Your task to perform on an android device: open app "Roku - Official Remote Control" Image 0: 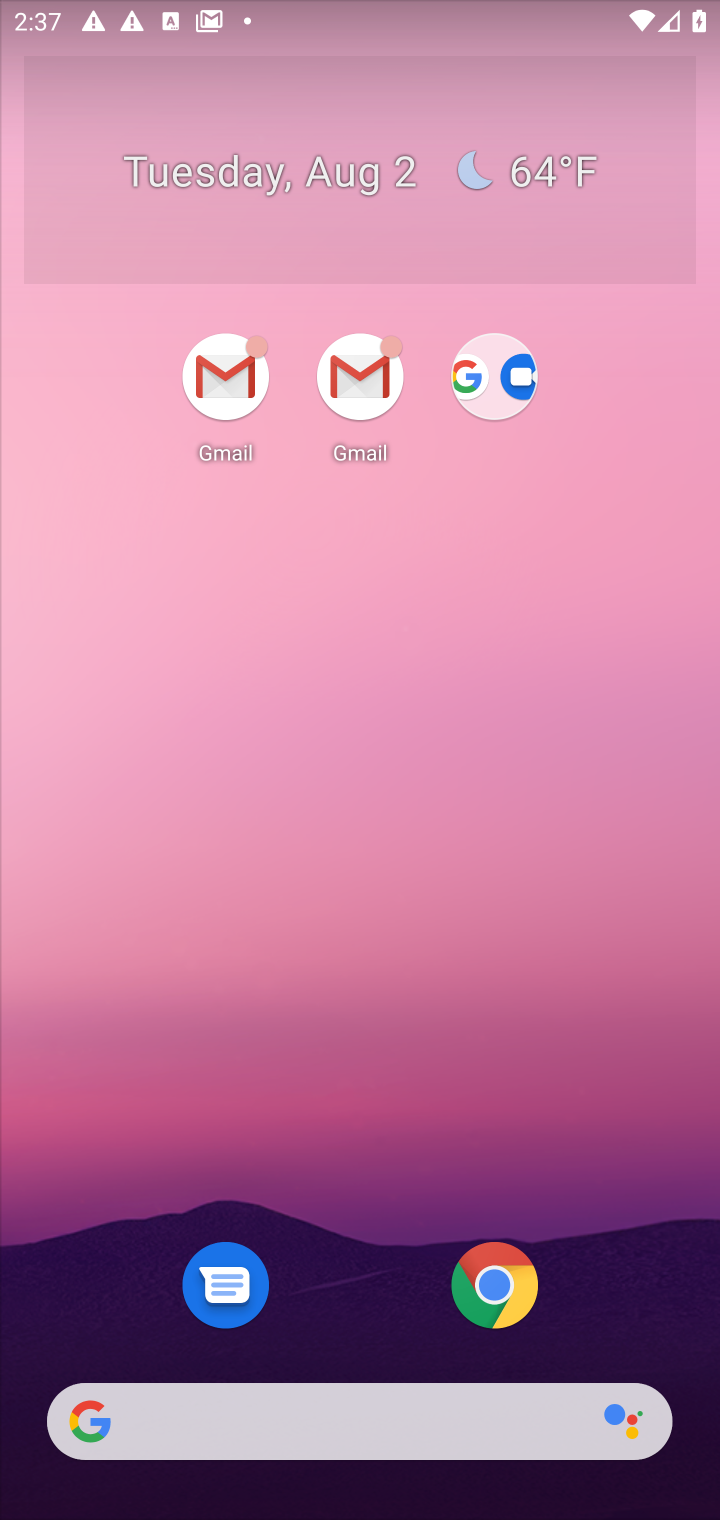
Step 0: drag from (580, 1146) to (559, 271)
Your task to perform on an android device: open app "Roku - Official Remote Control" Image 1: 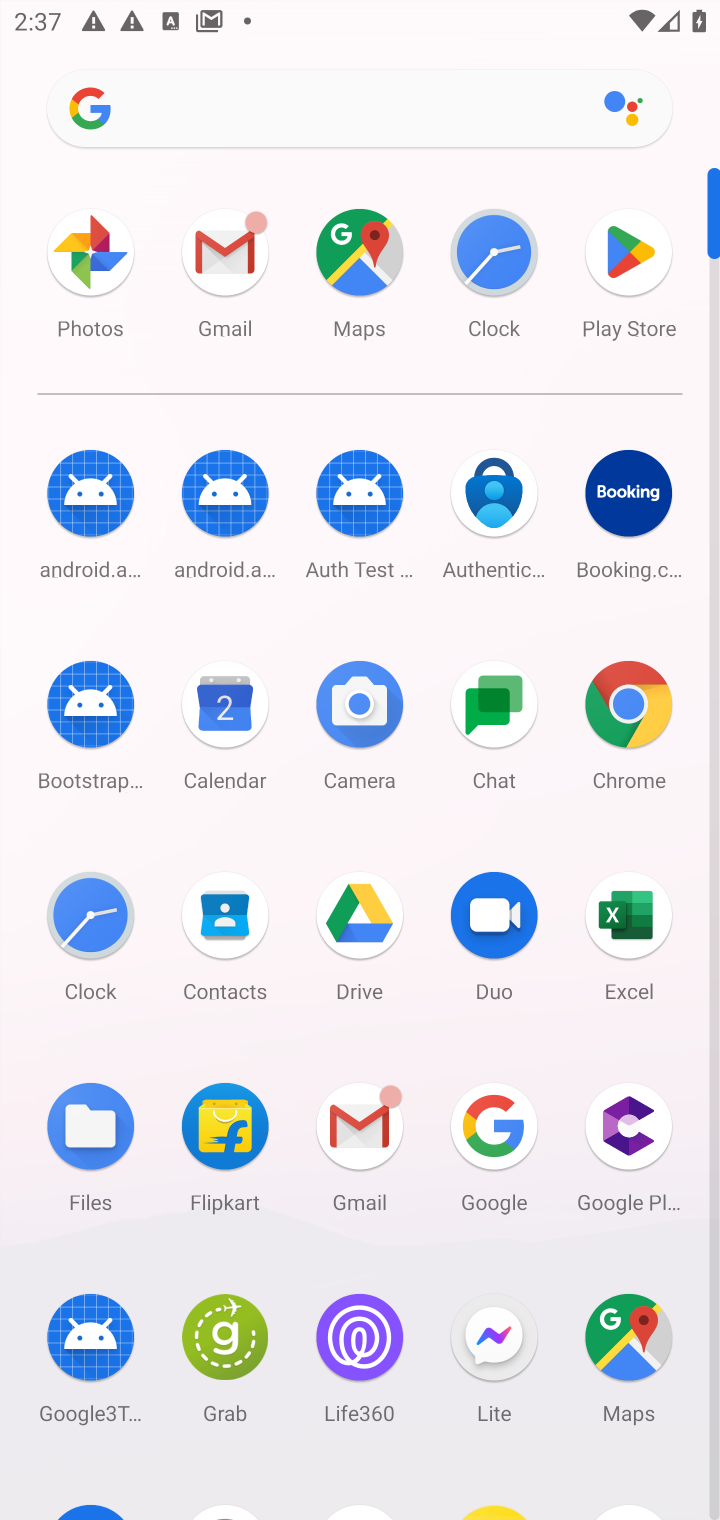
Step 1: drag from (446, 1258) to (449, 501)
Your task to perform on an android device: open app "Roku - Official Remote Control" Image 2: 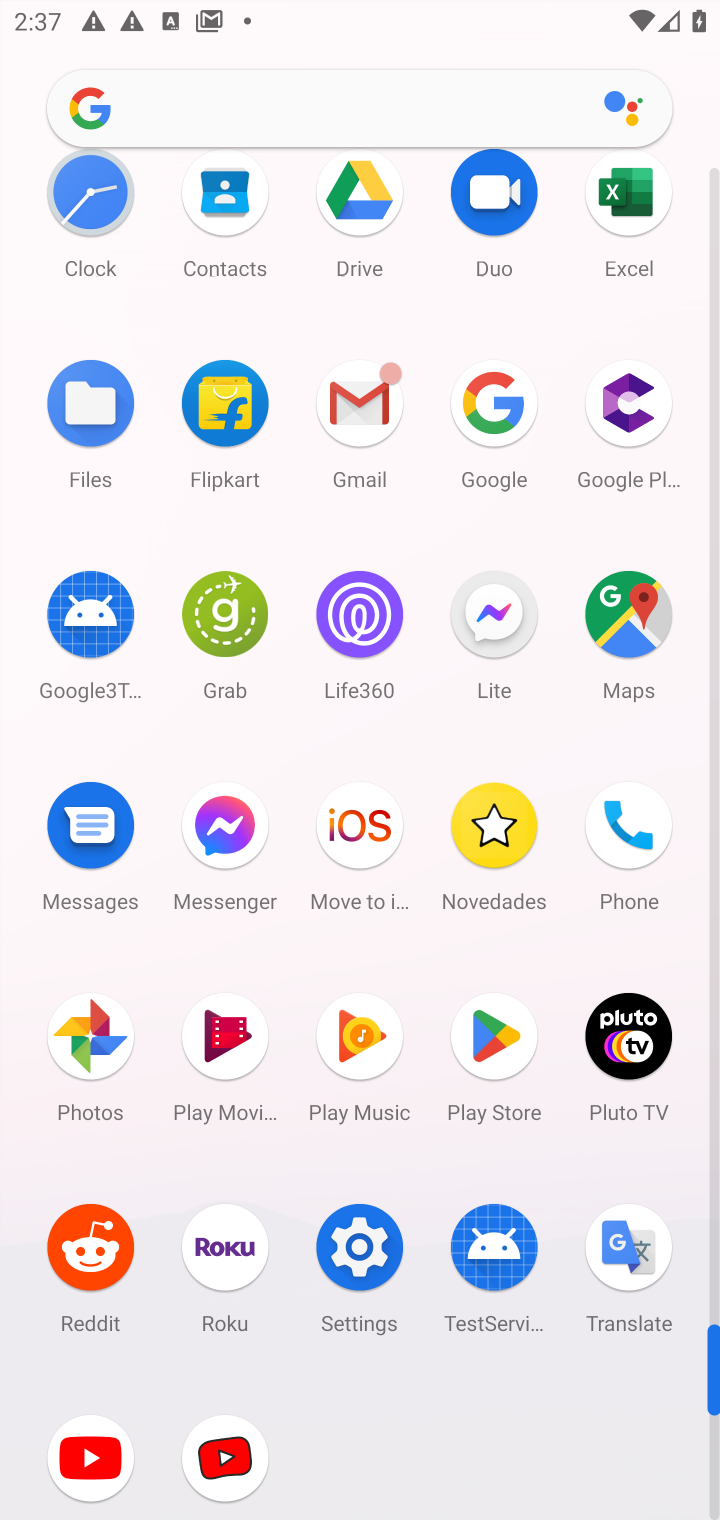
Step 2: click (506, 1031)
Your task to perform on an android device: open app "Roku - Official Remote Control" Image 3: 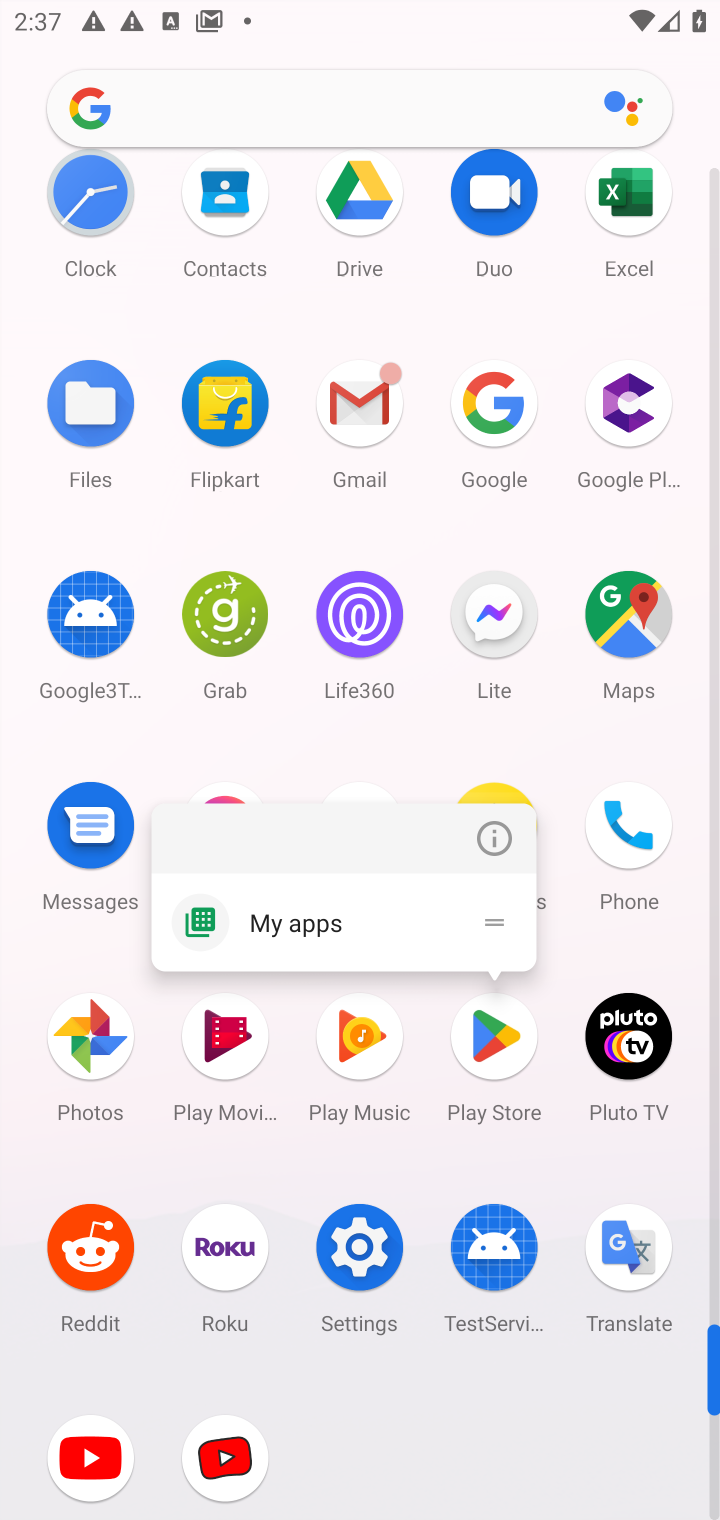
Step 3: click (493, 1034)
Your task to perform on an android device: open app "Roku - Official Remote Control" Image 4: 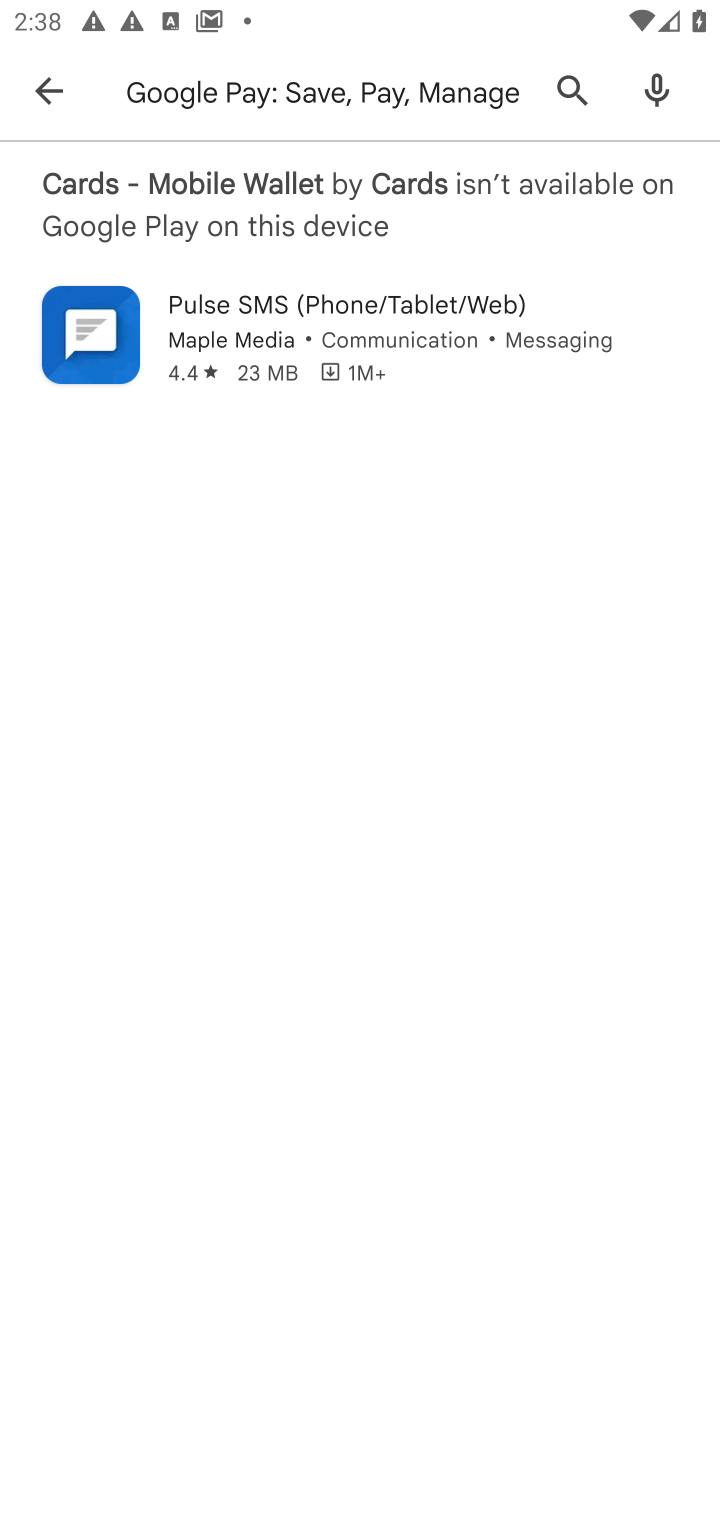
Step 4: click (417, 82)
Your task to perform on an android device: open app "Roku - Official Remote Control" Image 5: 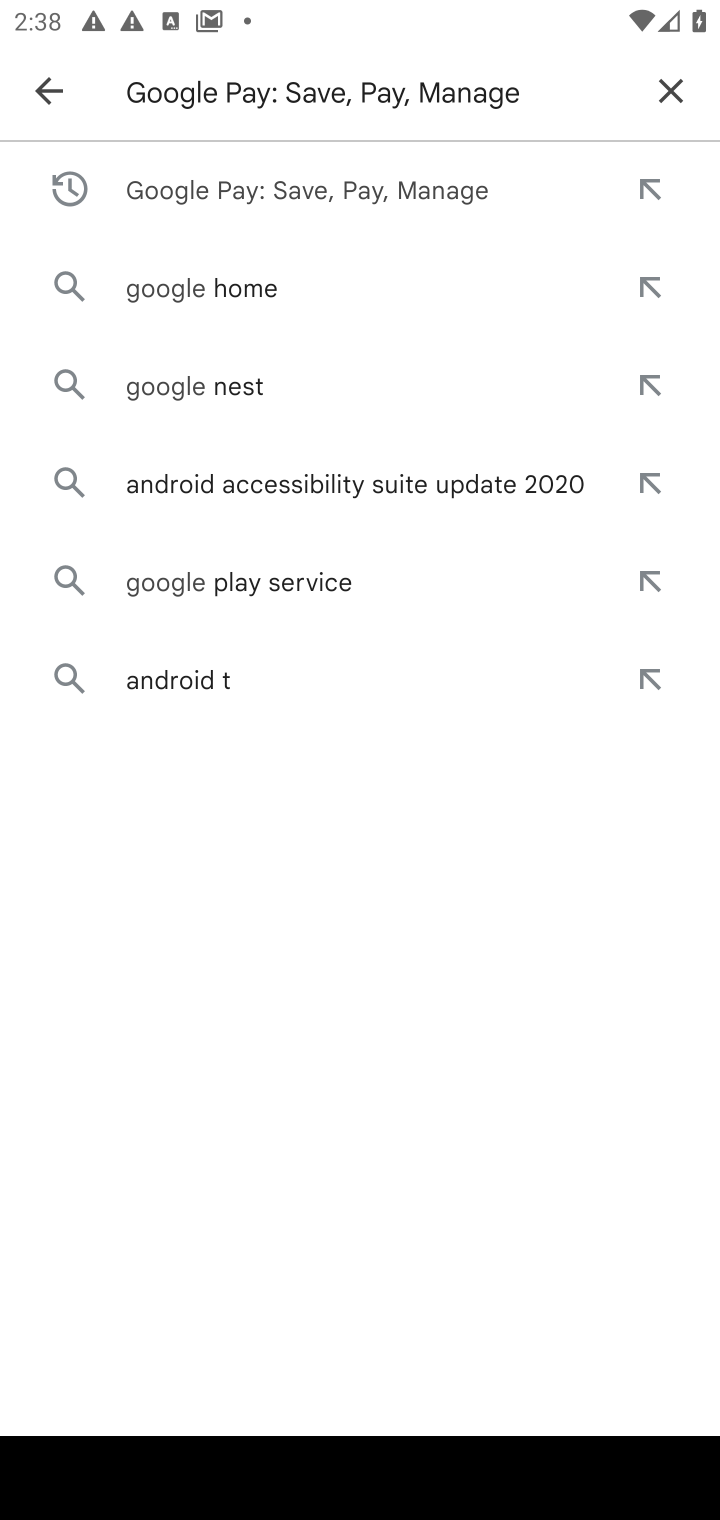
Step 5: click (694, 103)
Your task to perform on an android device: open app "Roku - Official Remote Control" Image 6: 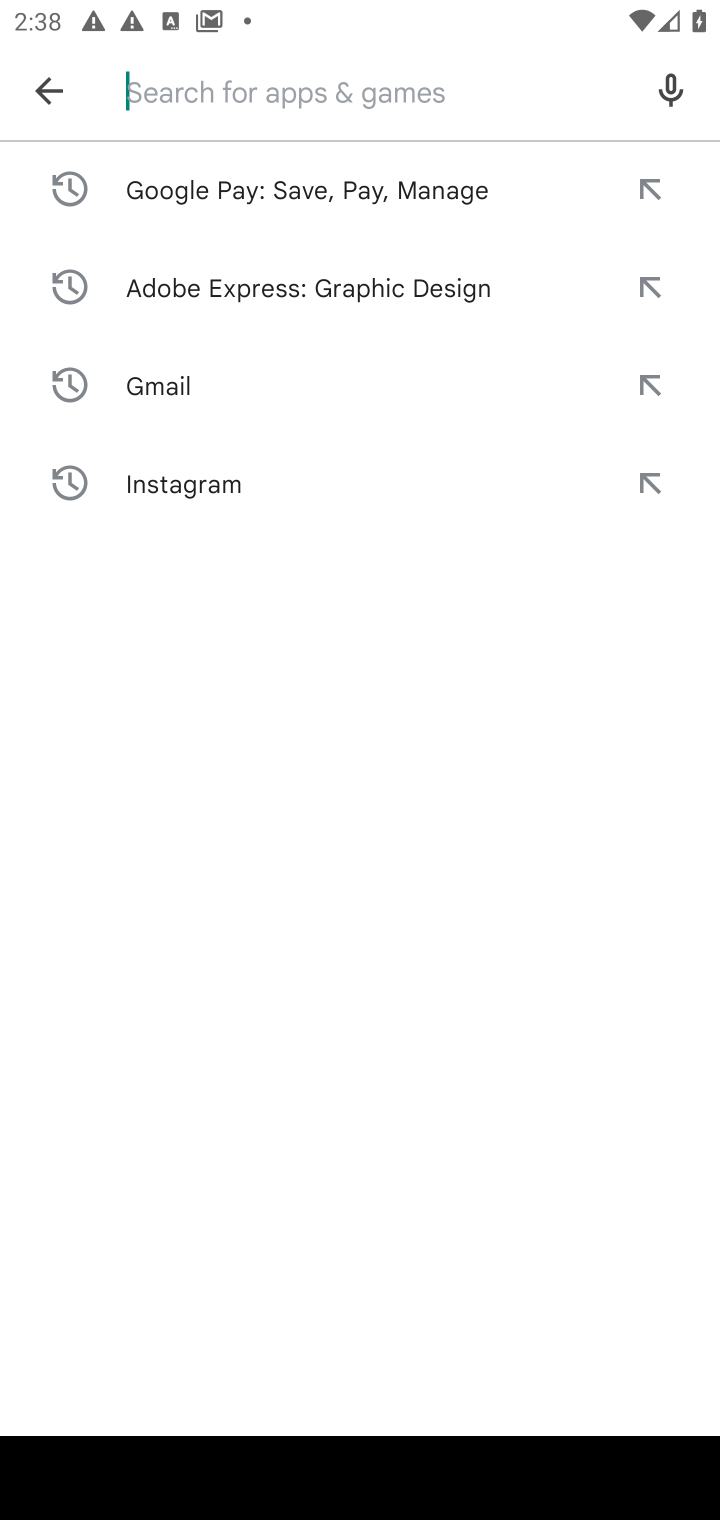
Step 6: type "Roku - Official Remote Control"
Your task to perform on an android device: open app "Roku - Official Remote Control" Image 7: 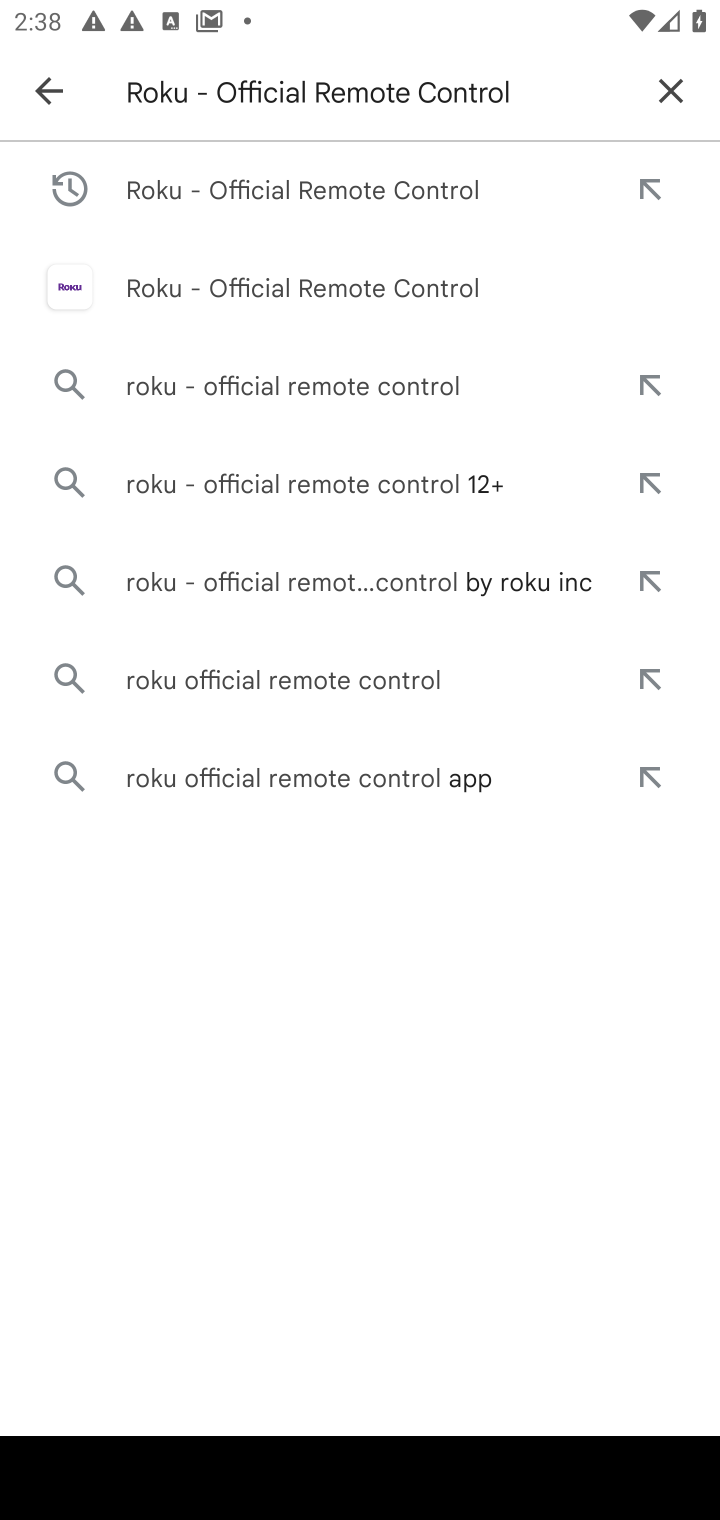
Step 7: press enter
Your task to perform on an android device: open app "Roku - Official Remote Control" Image 8: 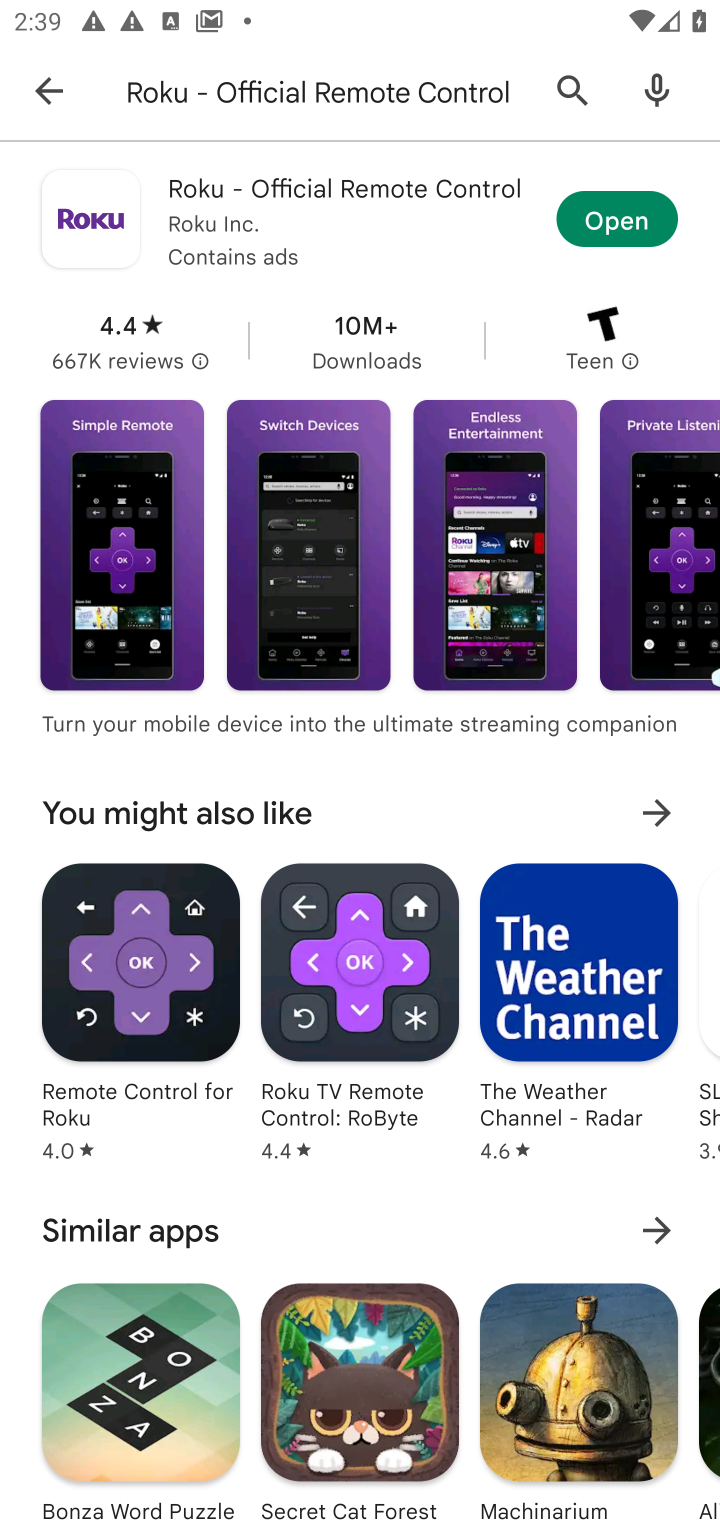
Step 8: click (633, 199)
Your task to perform on an android device: open app "Roku - Official Remote Control" Image 9: 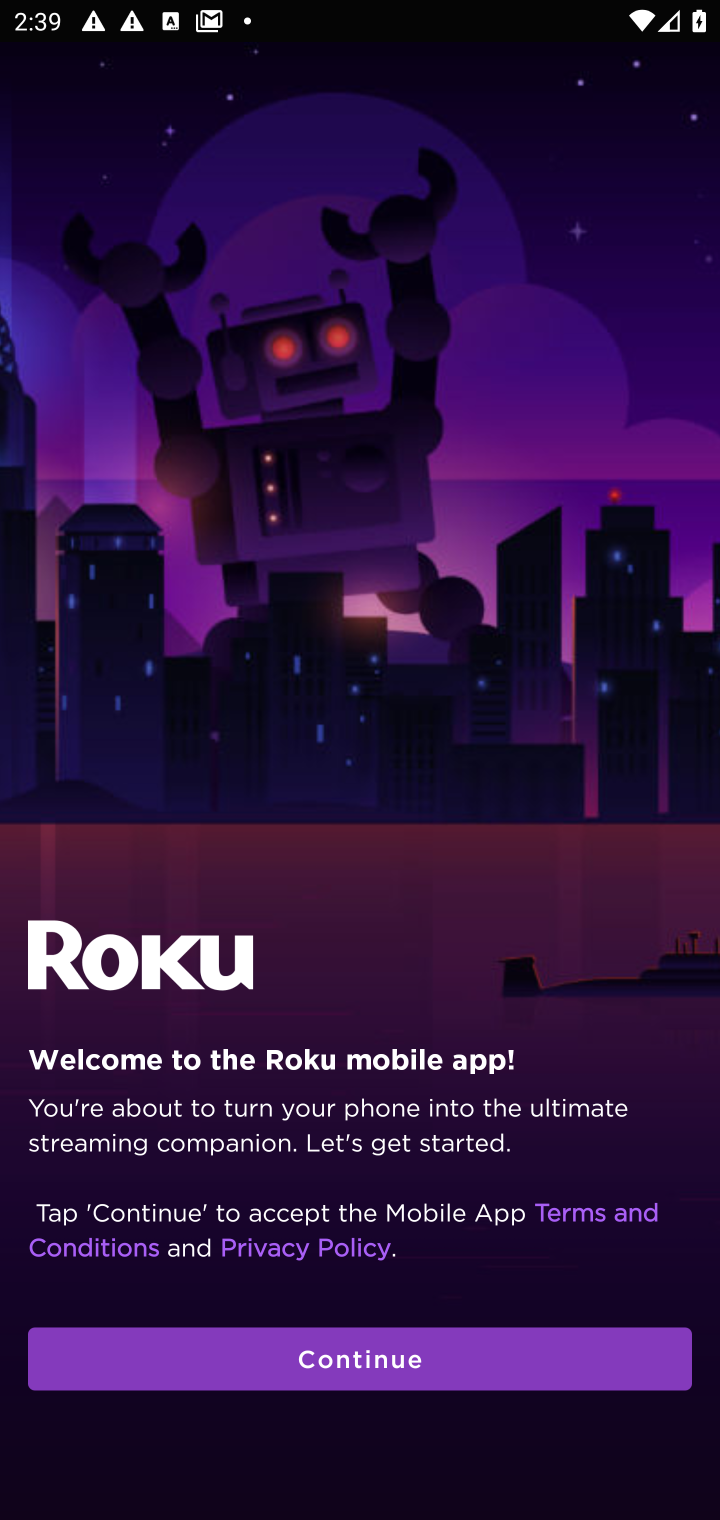
Step 9: task complete